Your task to perform on an android device: make emails show in primary in the gmail app Image 0: 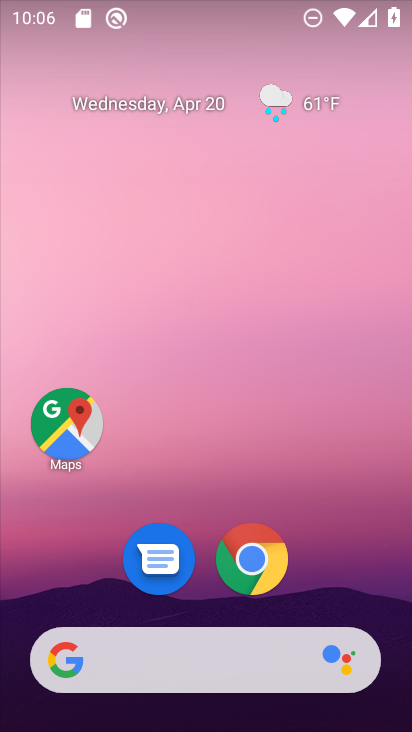
Step 0: drag from (388, 622) to (311, 65)
Your task to perform on an android device: make emails show in primary in the gmail app Image 1: 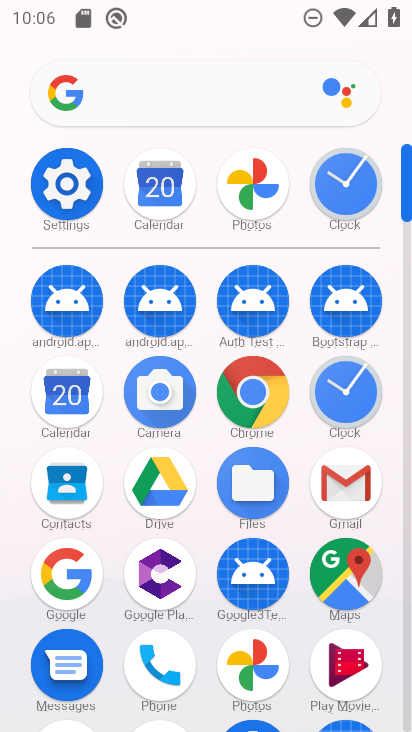
Step 1: click (408, 702)
Your task to perform on an android device: make emails show in primary in the gmail app Image 2: 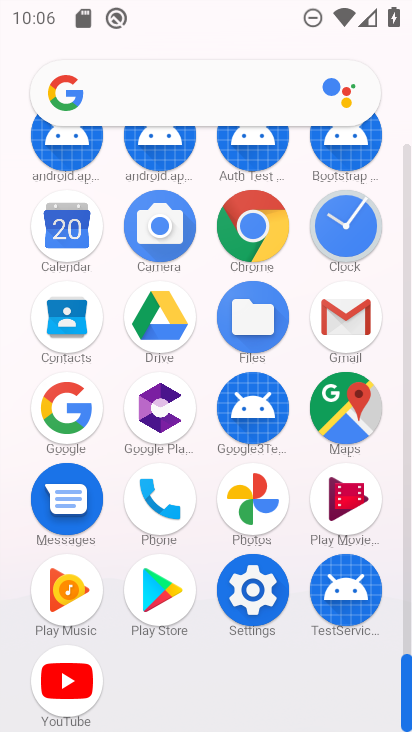
Step 2: click (340, 315)
Your task to perform on an android device: make emails show in primary in the gmail app Image 3: 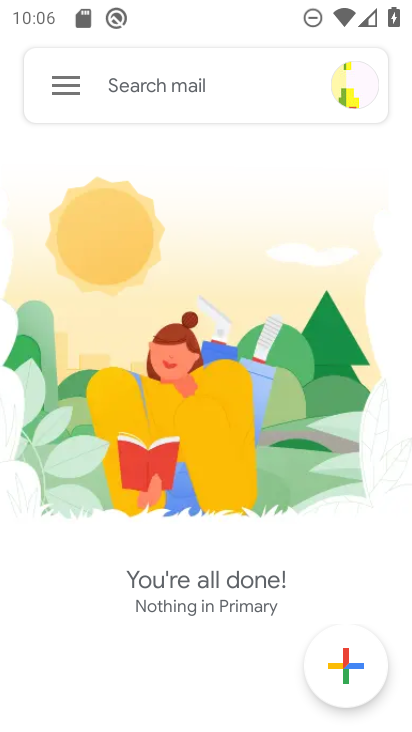
Step 3: click (61, 81)
Your task to perform on an android device: make emails show in primary in the gmail app Image 4: 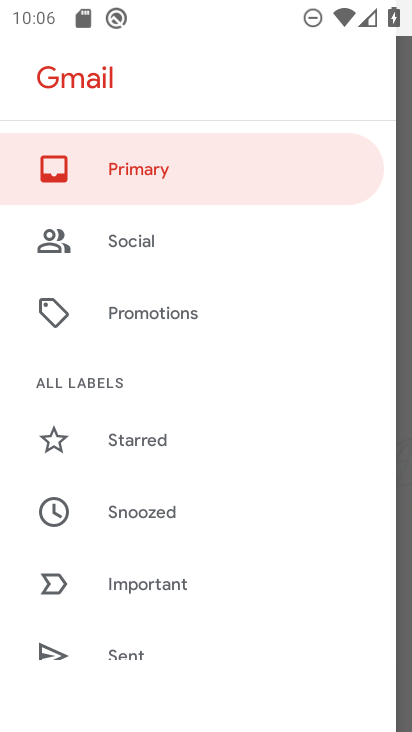
Step 4: task complete